Your task to perform on an android device: toggle translation in the chrome app Image 0: 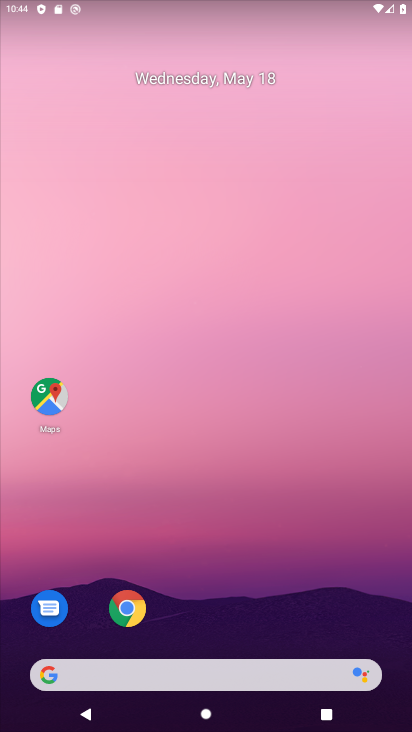
Step 0: press home button
Your task to perform on an android device: toggle translation in the chrome app Image 1: 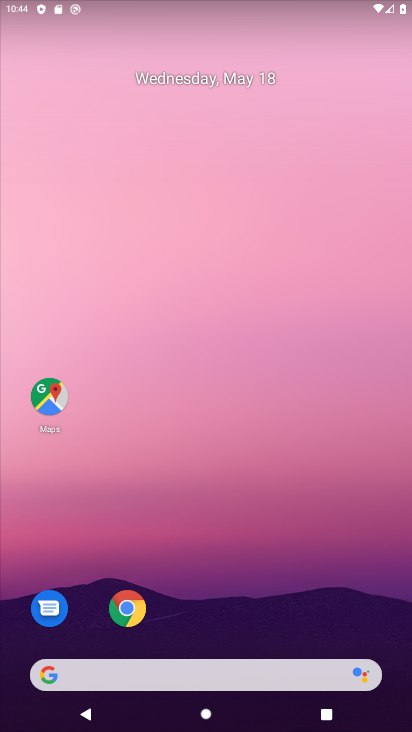
Step 1: click (134, 603)
Your task to perform on an android device: toggle translation in the chrome app Image 2: 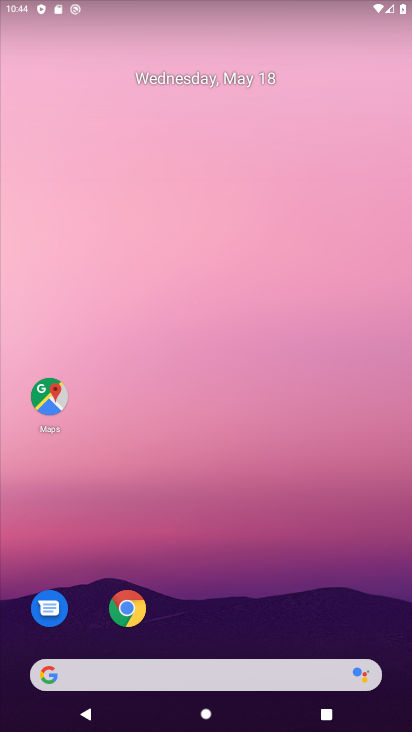
Step 2: click (134, 603)
Your task to perform on an android device: toggle translation in the chrome app Image 3: 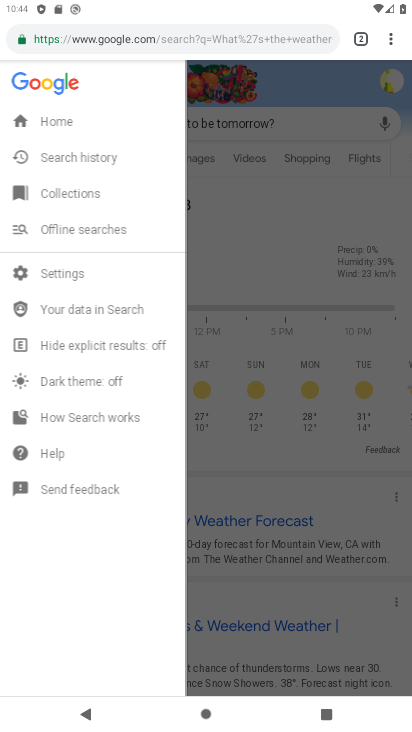
Step 3: drag from (396, 24) to (250, 439)
Your task to perform on an android device: toggle translation in the chrome app Image 4: 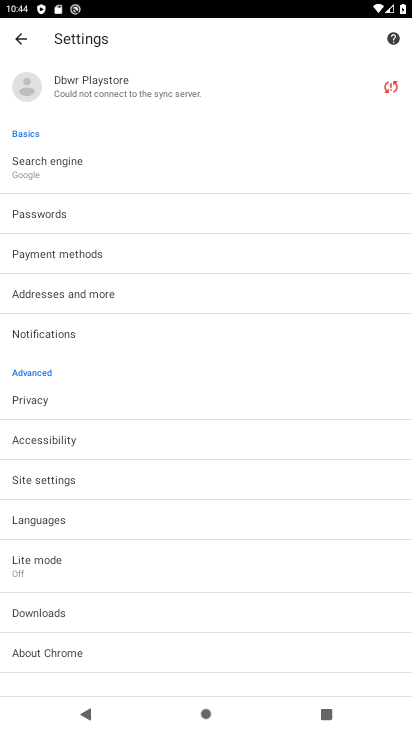
Step 4: click (73, 501)
Your task to perform on an android device: toggle translation in the chrome app Image 5: 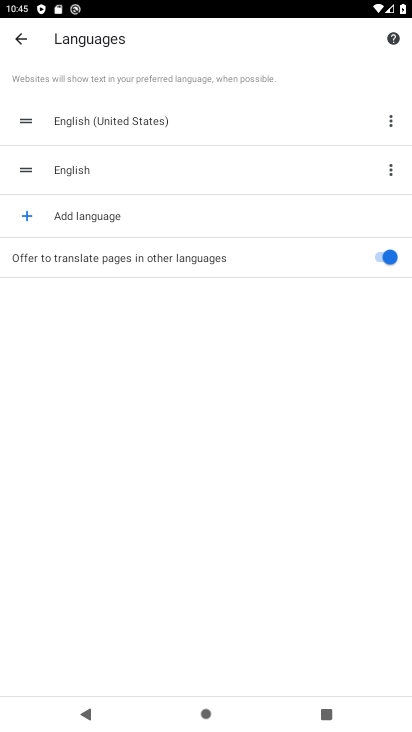
Step 5: click (367, 263)
Your task to perform on an android device: toggle translation in the chrome app Image 6: 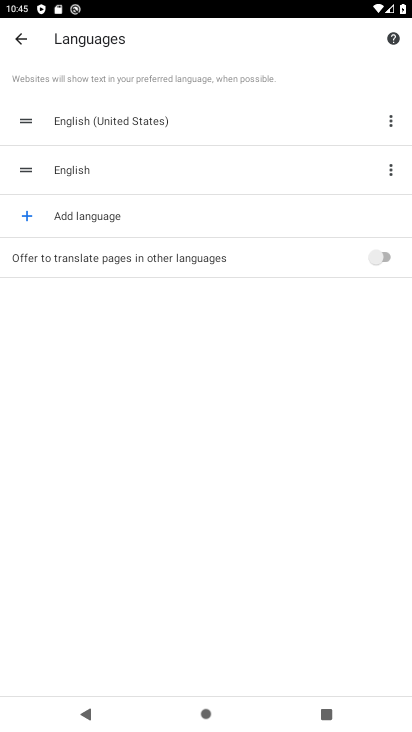
Step 6: task complete